Your task to perform on an android device: turn smart compose on in the gmail app Image 0: 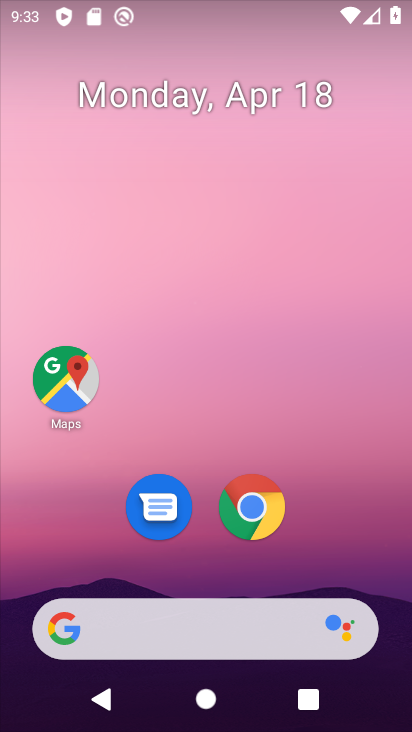
Step 0: drag from (220, 458) to (278, 42)
Your task to perform on an android device: turn smart compose on in the gmail app Image 1: 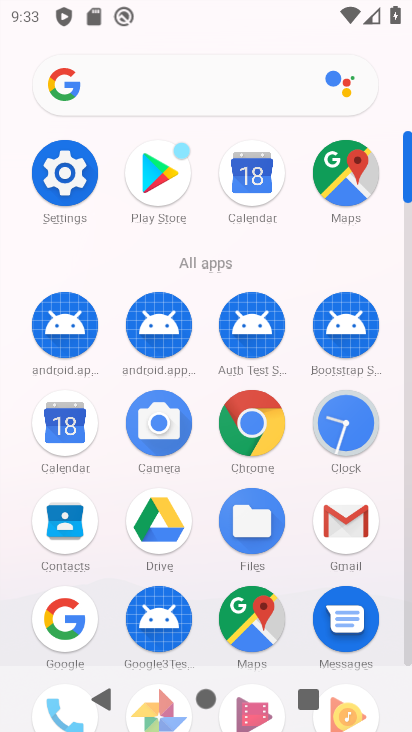
Step 1: click (338, 518)
Your task to perform on an android device: turn smart compose on in the gmail app Image 2: 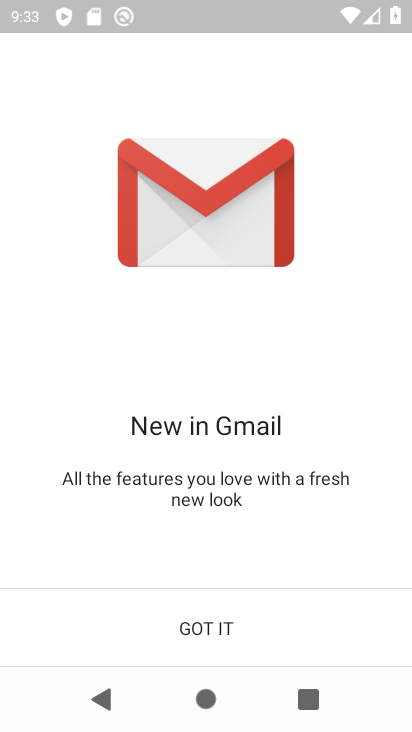
Step 2: click (241, 620)
Your task to perform on an android device: turn smart compose on in the gmail app Image 3: 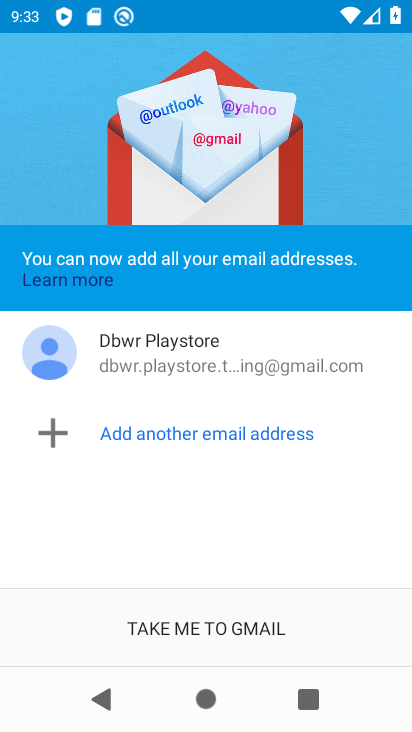
Step 3: click (240, 620)
Your task to perform on an android device: turn smart compose on in the gmail app Image 4: 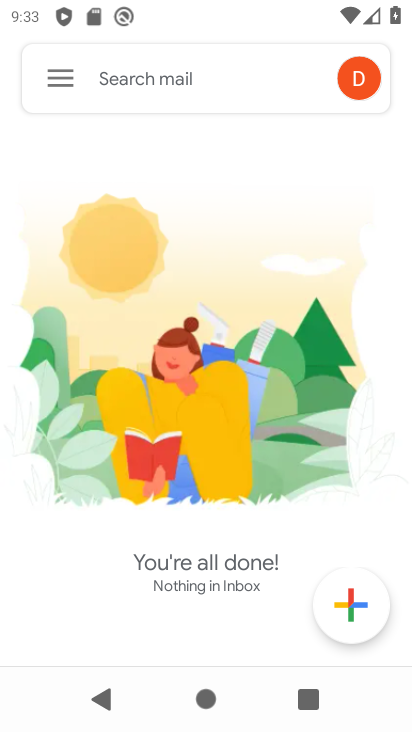
Step 4: click (52, 65)
Your task to perform on an android device: turn smart compose on in the gmail app Image 5: 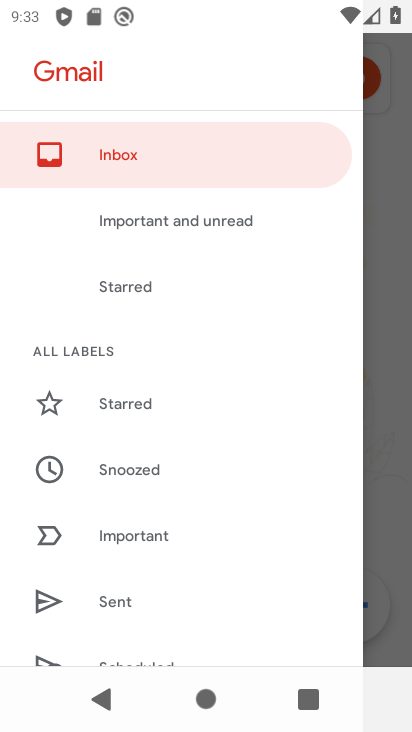
Step 5: drag from (165, 519) to (139, 70)
Your task to perform on an android device: turn smart compose on in the gmail app Image 6: 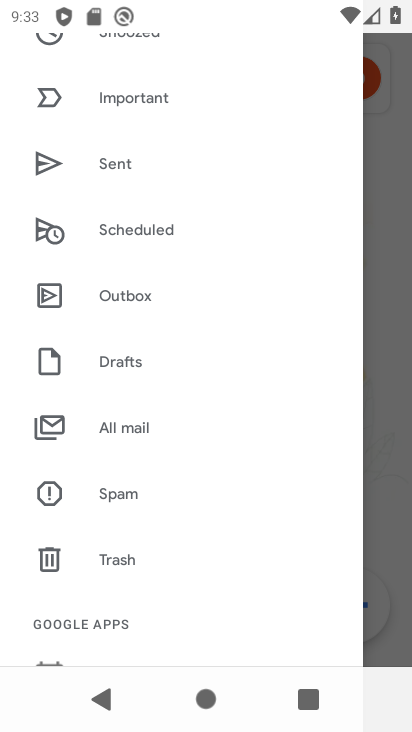
Step 6: drag from (132, 563) to (101, 193)
Your task to perform on an android device: turn smart compose on in the gmail app Image 7: 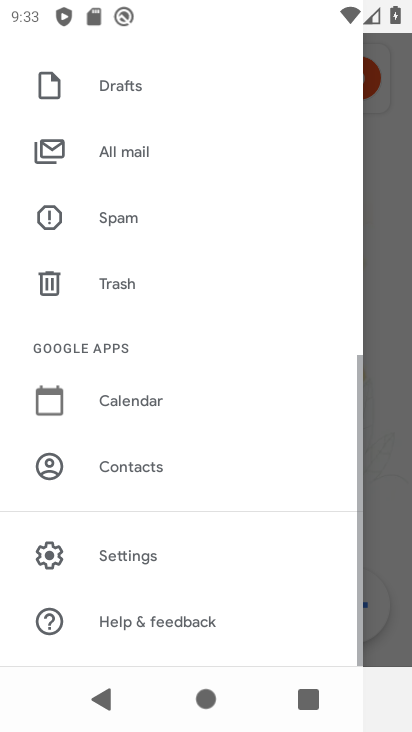
Step 7: click (120, 537)
Your task to perform on an android device: turn smart compose on in the gmail app Image 8: 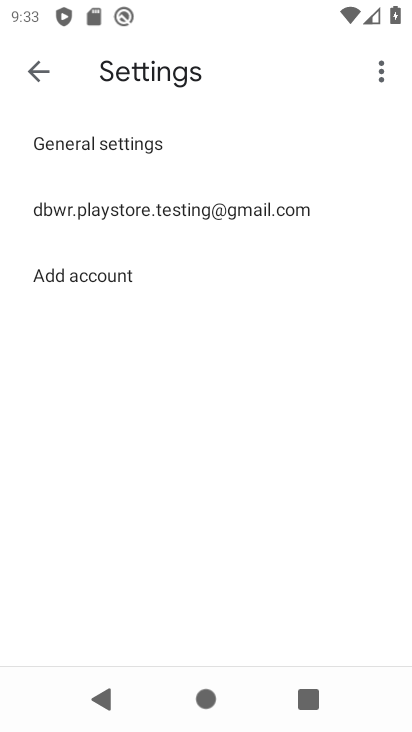
Step 8: click (101, 216)
Your task to perform on an android device: turn smart compose on in the gmail app Image 9: 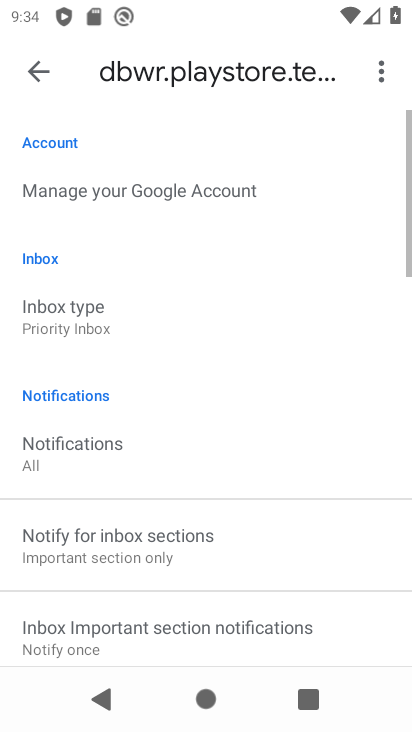
Step 9: task complete